Your task to perform on an android device: Open notification settings Image 0: 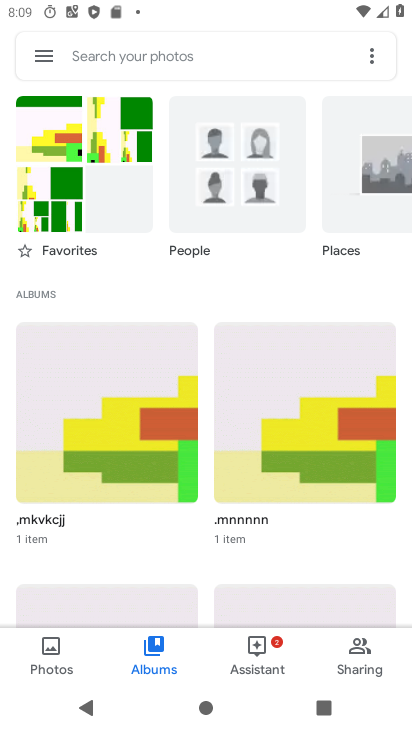
Step 0: press home button
Your task to perform on an android device: Open notification settings Image 1: 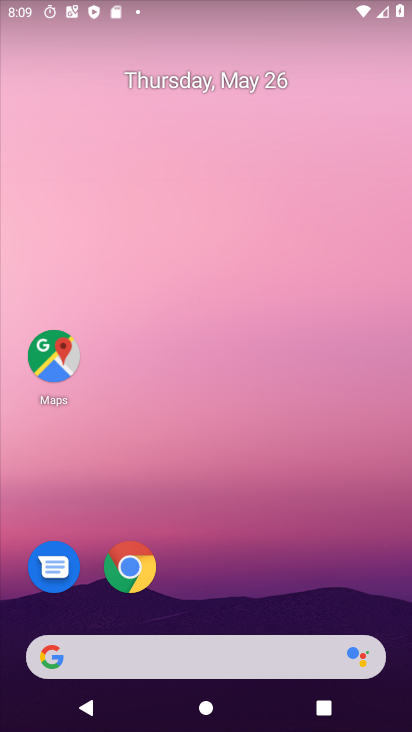
Step 1: drag from (128, 668) to (324, 102)
Your task to perform on an android device: Open notification settings Image 2: 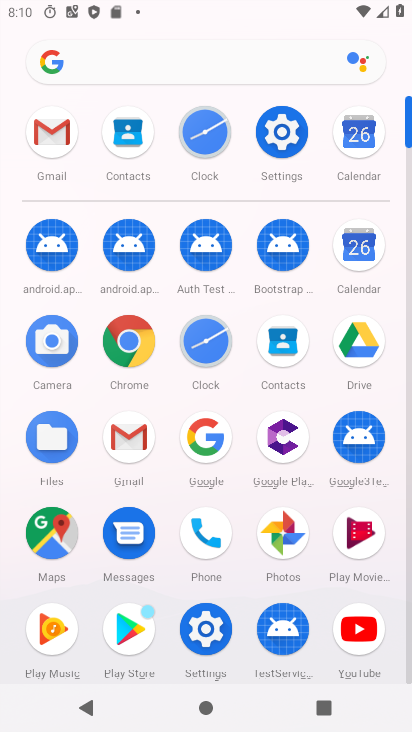
Step 2: click (287, 139)
Your task to perform on an android device: Open notification settings Image 3: 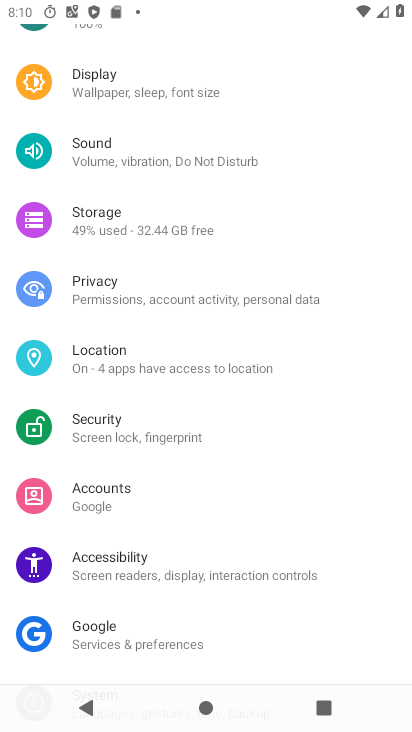
Step 3: drag from (327, 121) to (230, 592)
Your task to perform on an android device: Open notification settings Image 4: 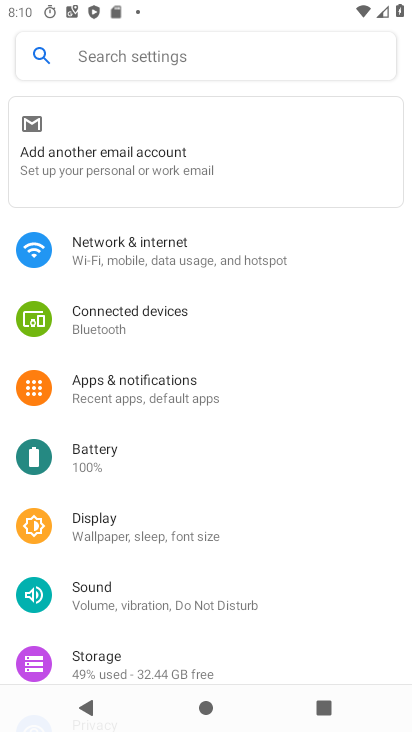
Step 4: click (165, 388)
Your task to perform on an android device: Open notification settings Image 5: 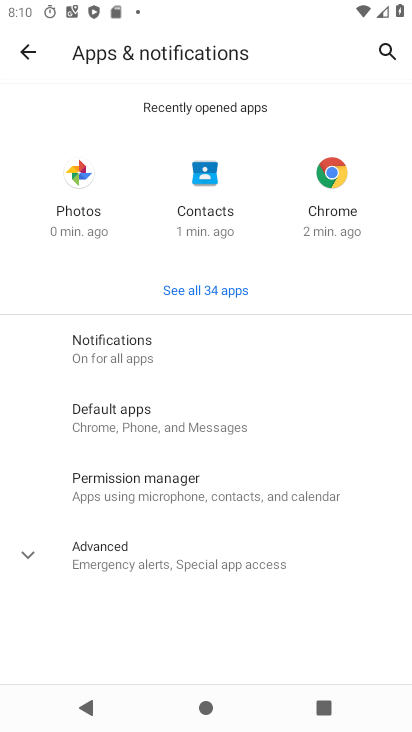
Step 5: click (103, 345)
Your task to perform on an android device: Open notification settings Image 6: 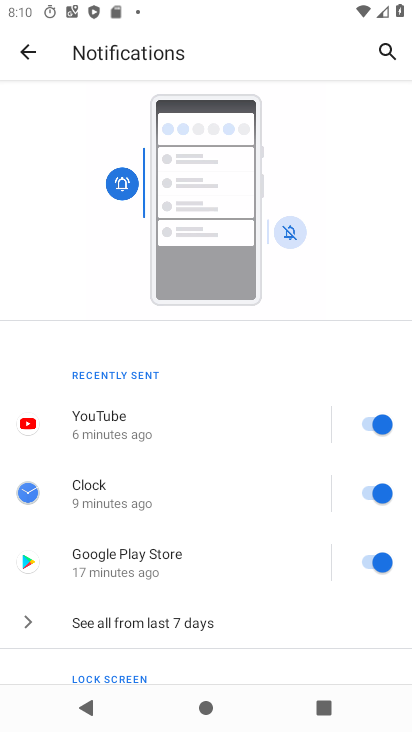
Step 6: task complete